Your task to perform on an android device: Turn off the flashlight Image 0: 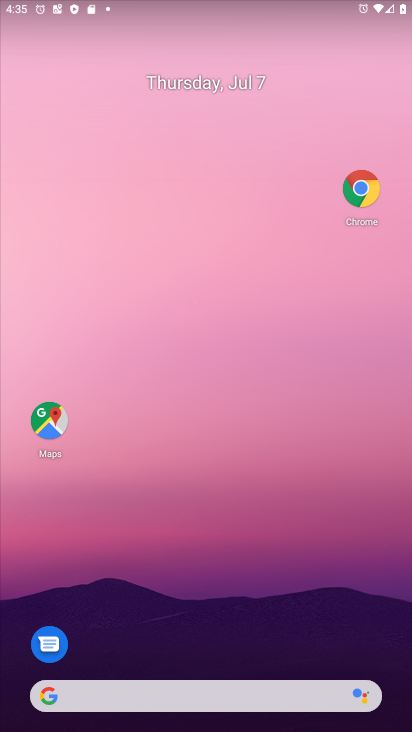
Step 0: drag from (347, 15) to (333, 436)
Your task to perform on an android device: Turn off the flashlight Image 1: 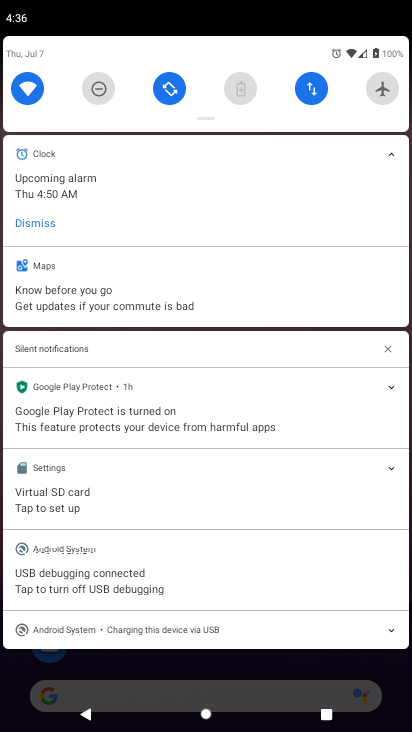
Step 1: task complete